Your task to perform on an android device: move a message to another label in the gmail app Image 0: 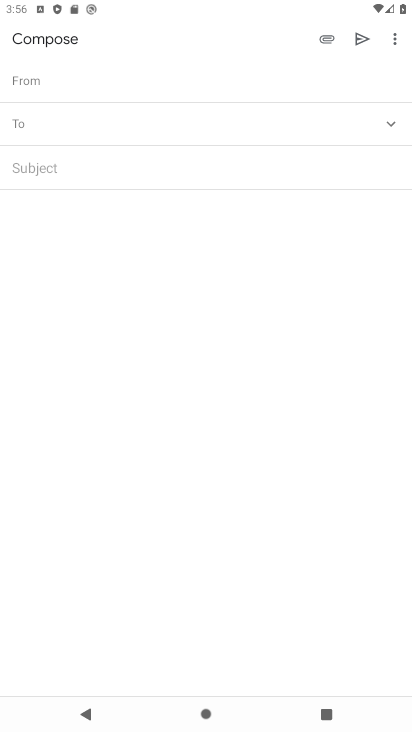
Step 0: drag from (205, 636) to (382, 557)
Your task to perform on an android device: move a message to another label in the gmail app Image 1: 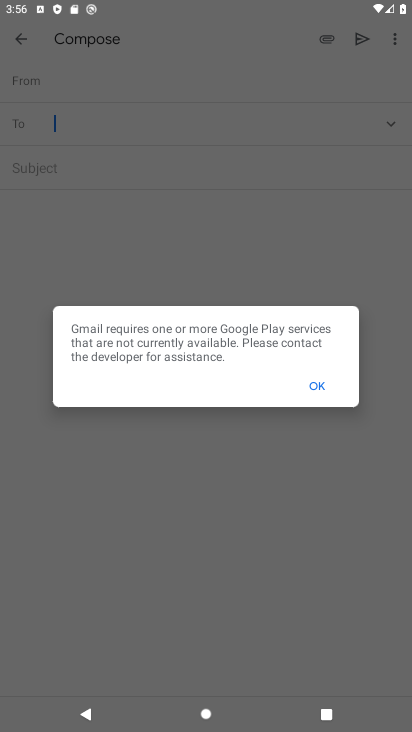
Step 1: press home button
Your task to perform on an android device: move a message to another label in the gmail app Image 2: 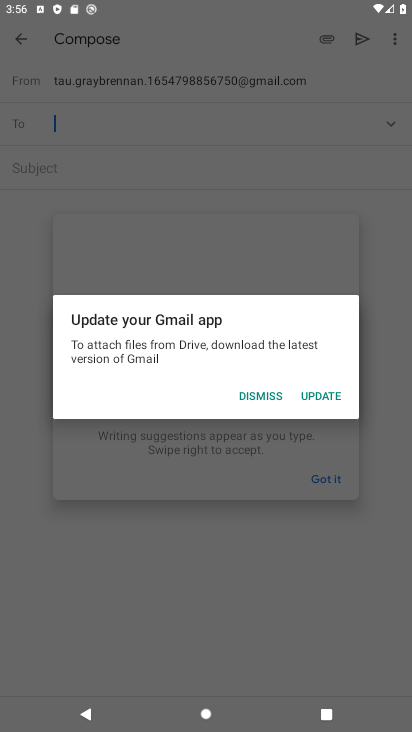
Step 2: drag from (382, 557) to (383, 506)
Your task to perform on an android device: move a message to another label in the gmail app Image 3: 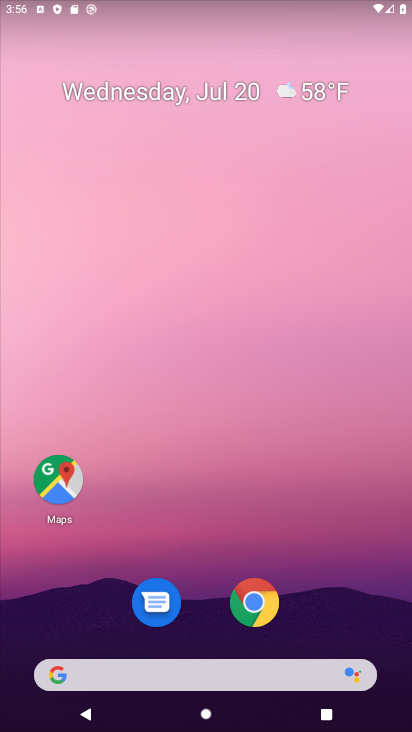
Step 3: drag from (217, 623) to (252, 90)
Your task to perform on an android device: move a message to another label in the gmail app Image 4: 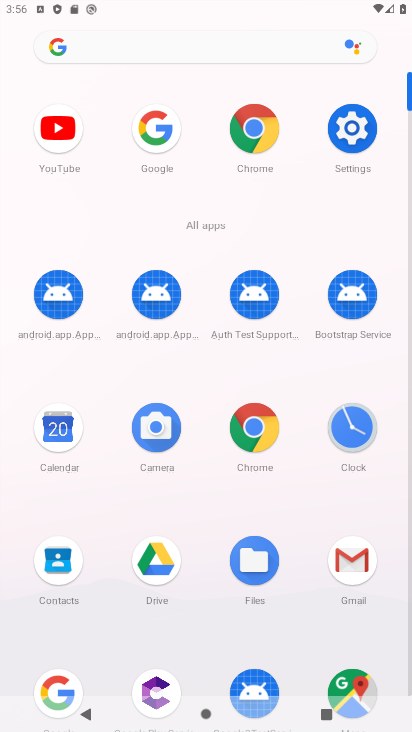
Step 4: click (360, 563)
Your task to perform on an android device: move a message to another label in the gmail app Image 5: 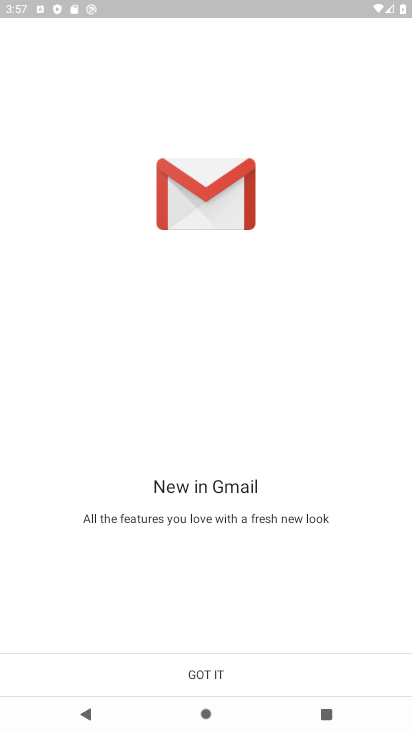
Step 5: click (184, 670)
Your task to perform on an android device: move a message to another label in the gmail app Image 6: 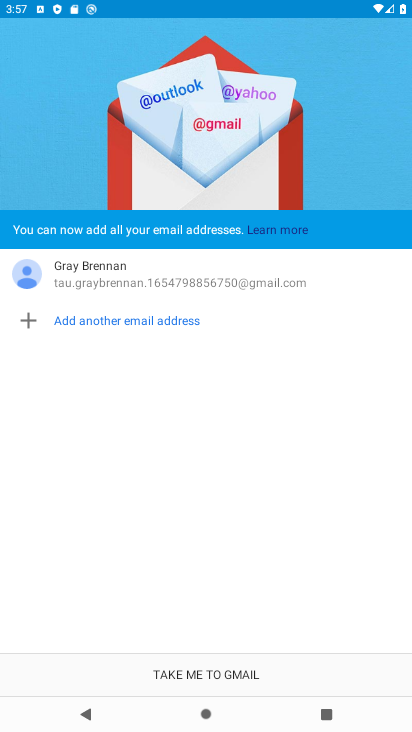
Step 6: click (184, 670)
Your task to perform on an android device: move a message to another label in the gmail app Image 7: 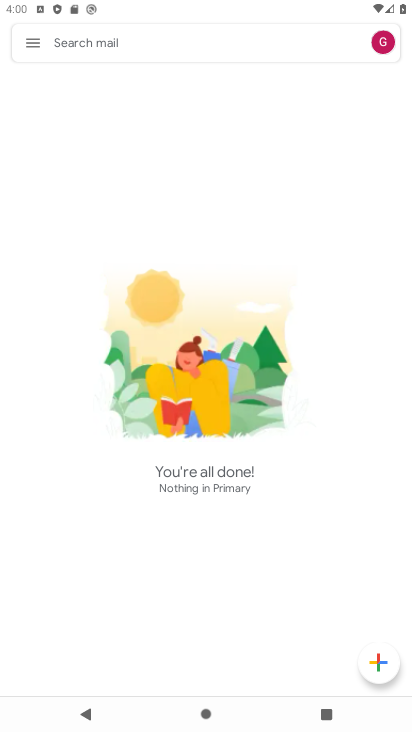
Step 7: press home button
Your task to perform on an android device: move a message to another label in the gmail app Image 8: 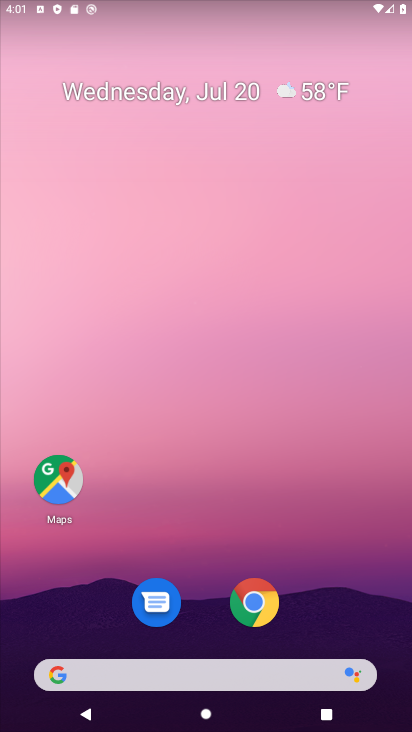
Step 8: drag from (203, 592) to (203, 274)
Your task to perform on an android device: move a message to another label in the gmail app Image 9: 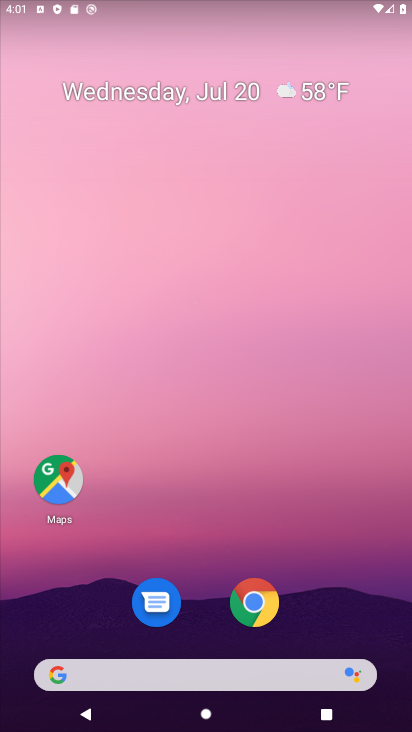
Step 9: drag from (207, 535) to (260, 96)
Your task to perform on an android device: move a message to another label in the gmail app Image 10: 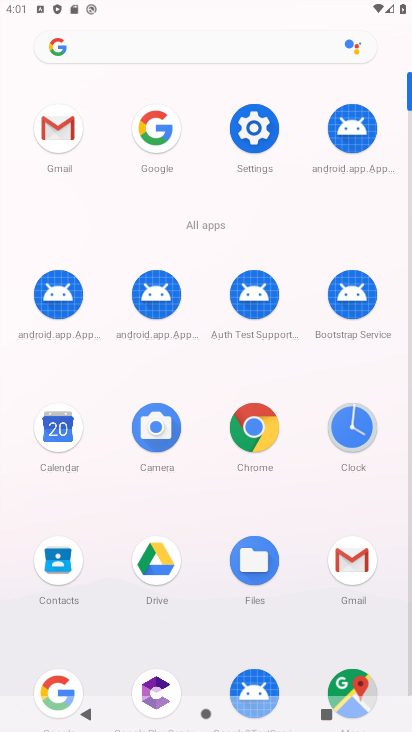
Step 10: click (354, 561)
Your task to perform on an android device: move a message to another label in the gmail app Image 11: 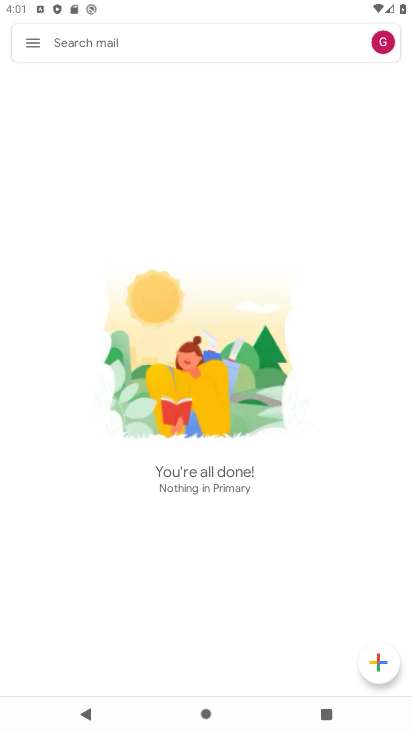
Step 11: click (33, 37)
Your task to perform on an android device: move a message to another label in the gmail app Image 12: 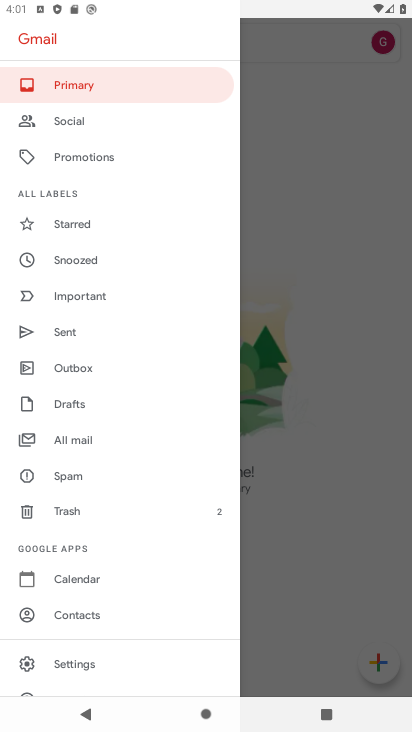
Step 12: click (77, 444)
Your task to perform on an android device: move a message to another label in the gmail app Image 13: 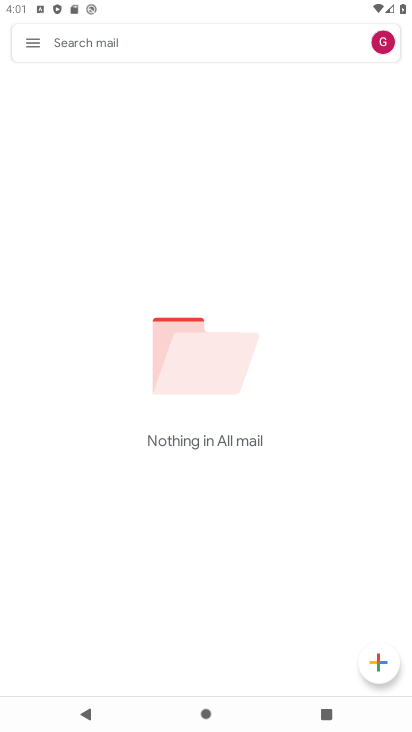
Step 13: task complete